Your task to perform on an android device: search for starred emails in the gmail app Image 0: 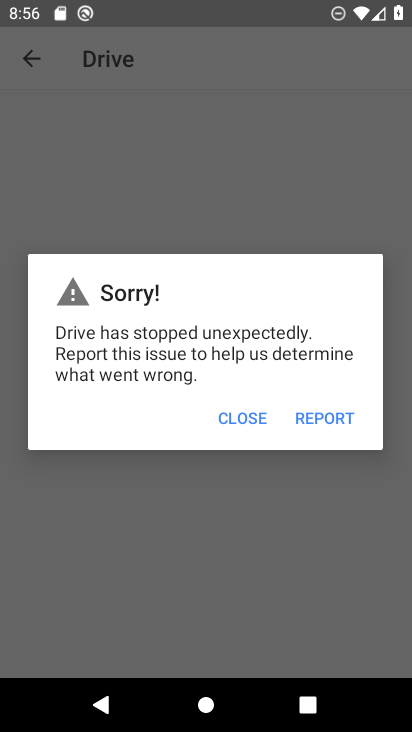
Step 0: press home button
Your task to perform on an android device: search for starred emails in the gmail app Image 1: 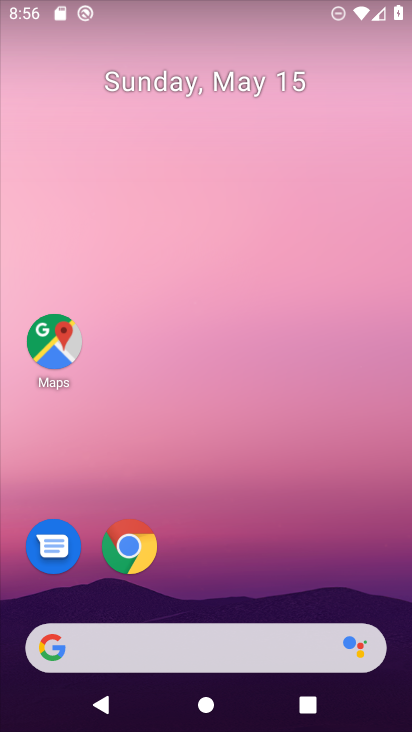
Step 1: drag from (220, 538) to (197, 63)
Your task to perform on an android device: search for starred emails in the gmail app Image 2: 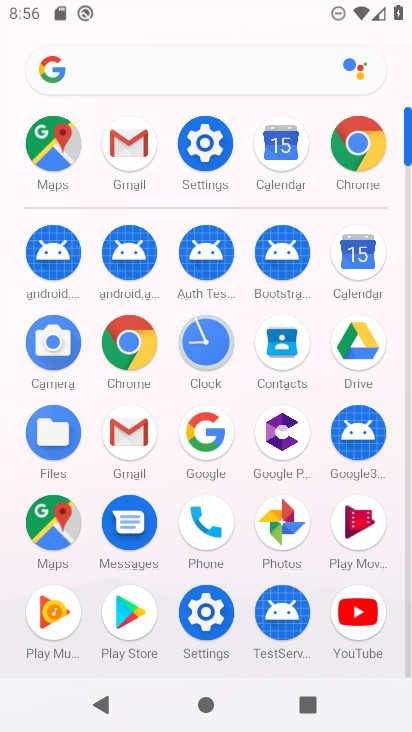
Step 2: click (129, 139)
Your task to perform on an android device: search for starred emails in the gmail app Image 3: 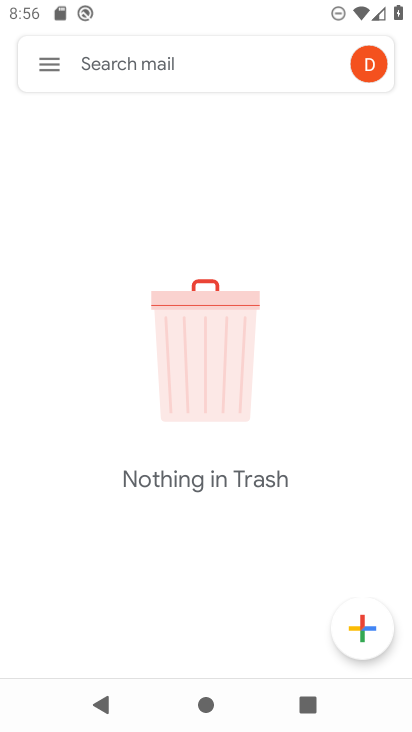
Step 3: click (40, 59)
Your task to perform on an android device: search for starred emails in the gmail app Image 4: 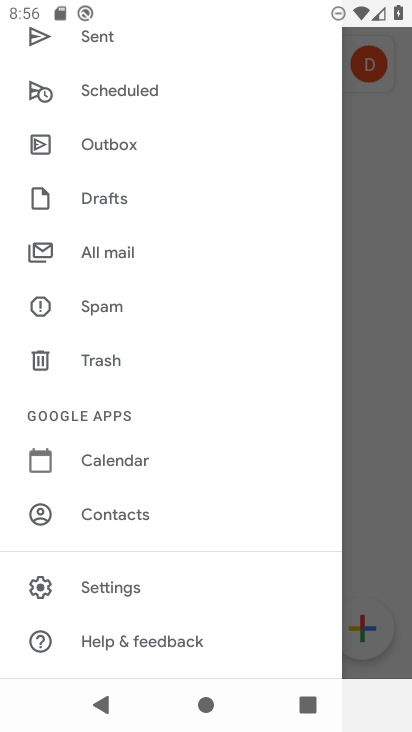
Step 4: drag from (193, 245) to (235, 620)
Your task to perform on an android device: search for starred emails in the gmail app Image 5: 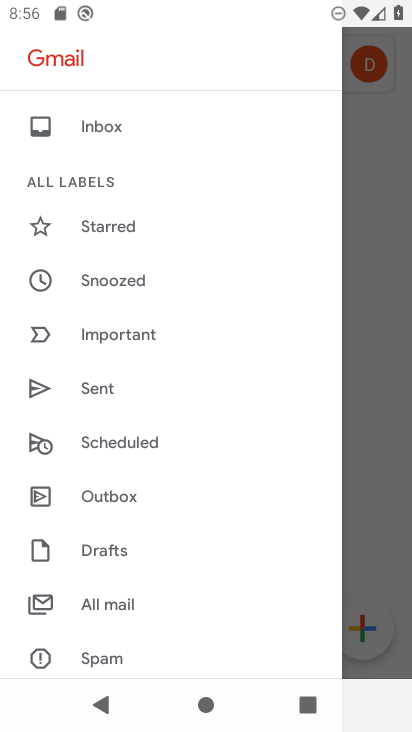
Step 5: click (164, 216)
Your task to perform on an android device: search for starred emails in the gmail app Image 6: 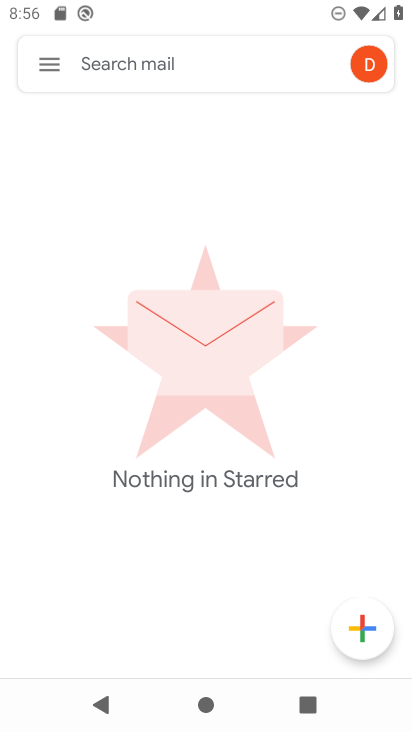
Step 6: task complete